Your task to perform on an android device: install app "YouTube Kids" Image 0: 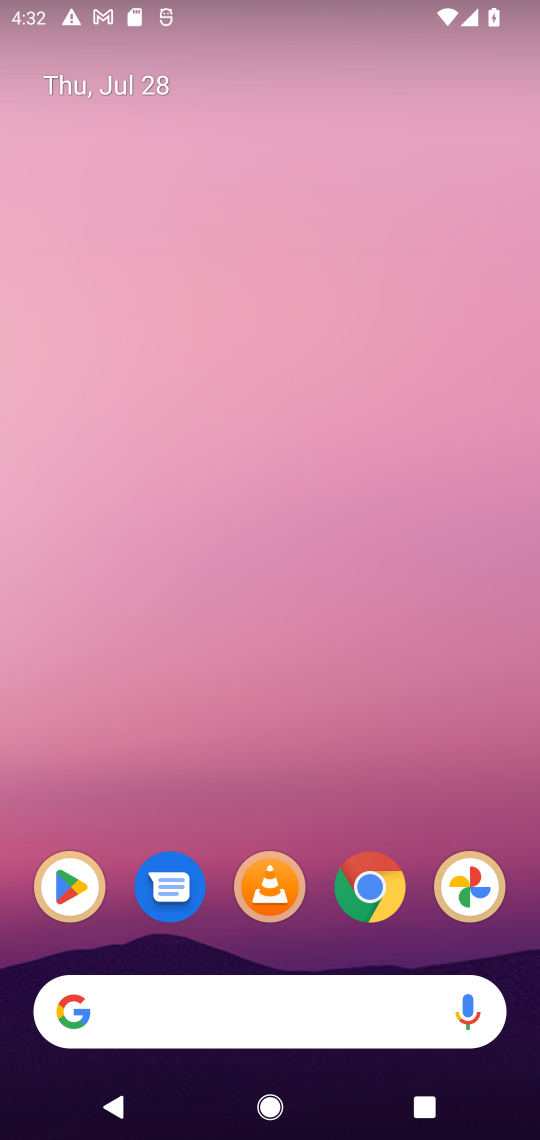
Step 0: click (86, 896)
Your task to perform on an android device: install app "YouTube Kids" Image 1: 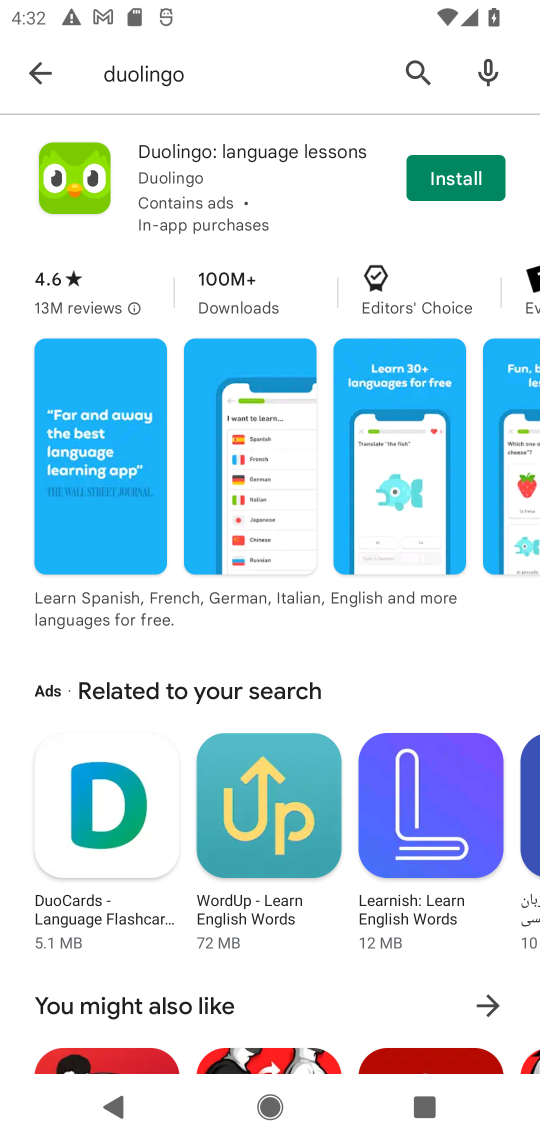
Step 1: click (217, 60)
Your task to perform on an android device: install app "YouTube Kids" Image 2: 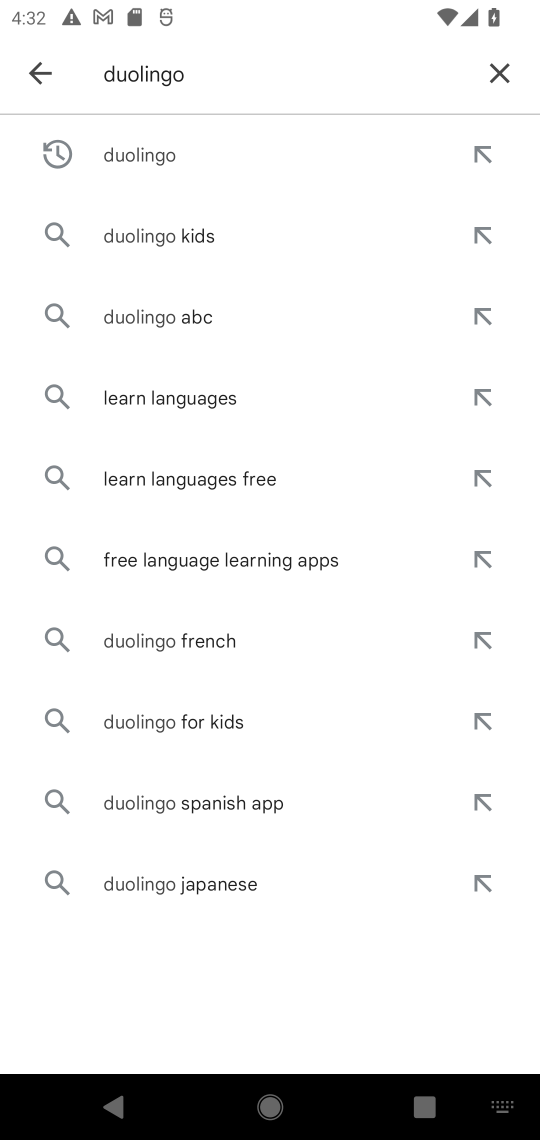
Step 2: click (508, 79)
Your task to perform on an android device: install app "YouTube Kids" Image 3: 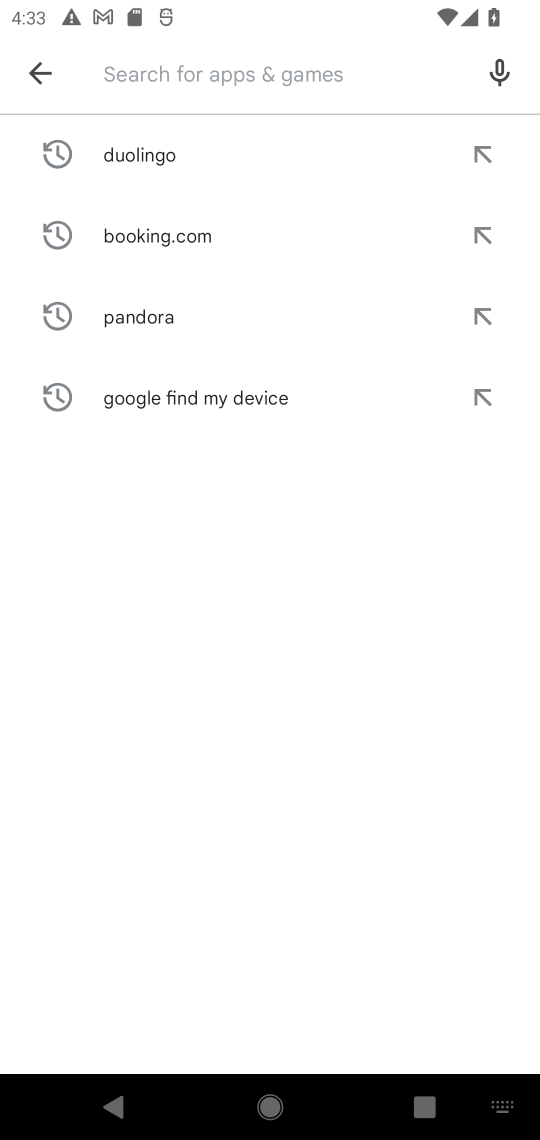
Step 3: type "YouTube Kids"
Your task to perform on an android device: install app "YouTube Kids" Image 4: 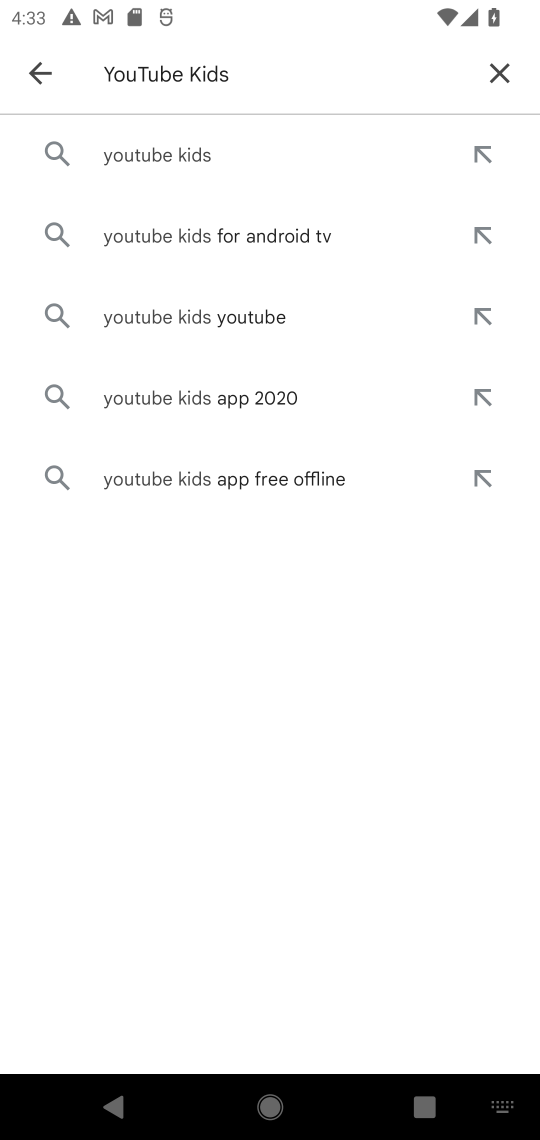
Step 4: click (158, 159)
Your task to perform on an android device: install app "YouTube Kids" Image 5: 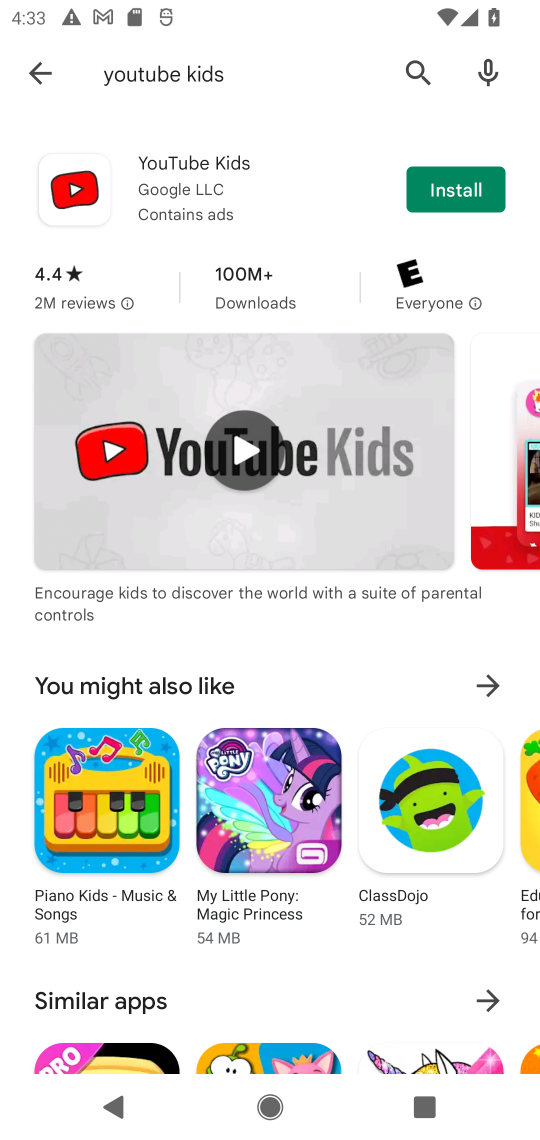
Step 5: click (439, 200)
Your task to perform on an android device: install app "YouTube Kids" Image 6: 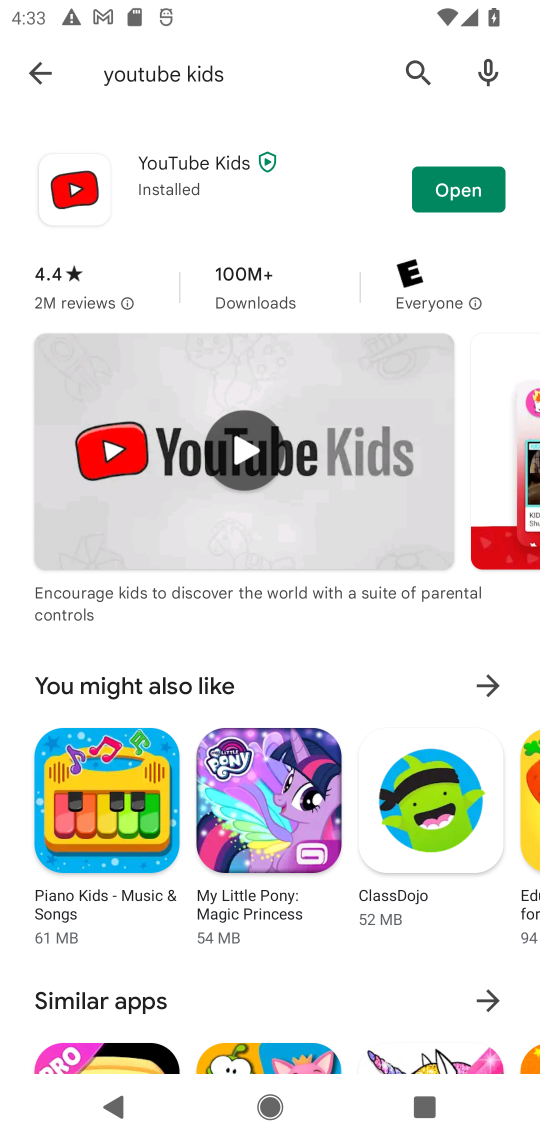
Step 6: click (463, 183)
Your task to perform on an android device: install app "YouTube Kids" Image 7: 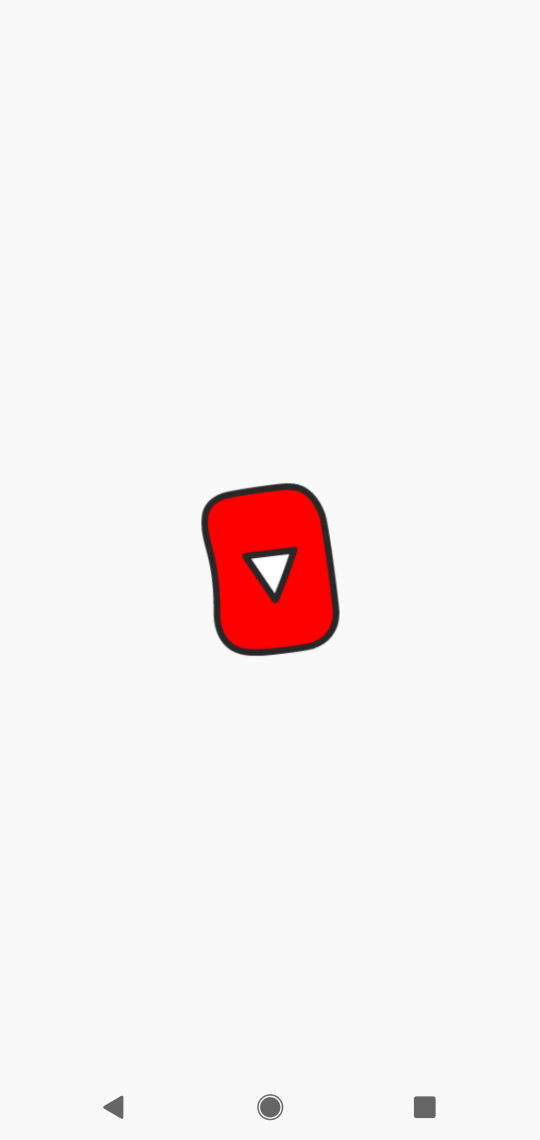
Step 7: task complete